Your task to perform on an android device: Open privacy settings Image 0: 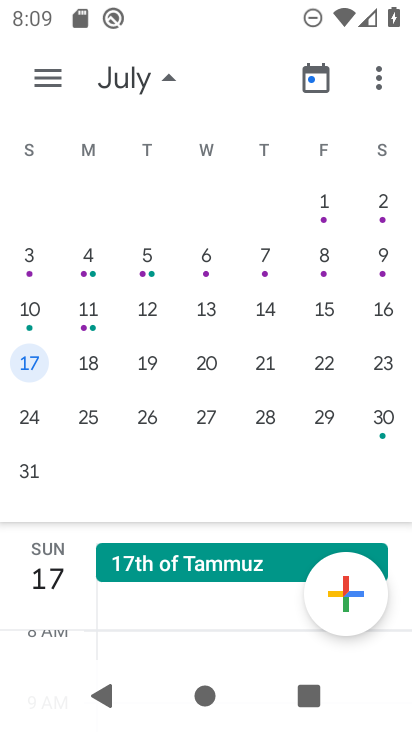
Step 0: press home button
Your task to perform on an android device: Open privacy settings Image 1: 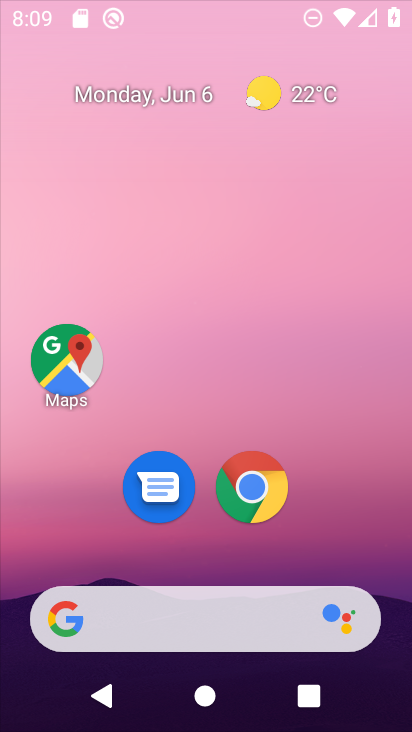
Step 1: drag from (393, 658) to (300, 106)
Your task to perform on an android device: Open privacy settings Image 2: 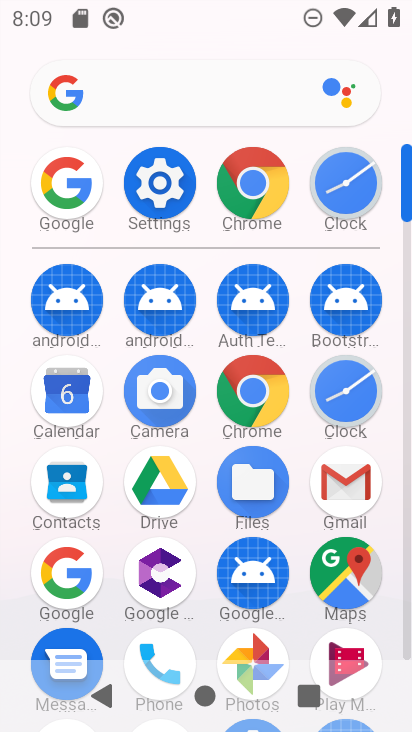
Step 2: click (271, 192)
Your task to perform on an android device: Open privacy settings Image 3: 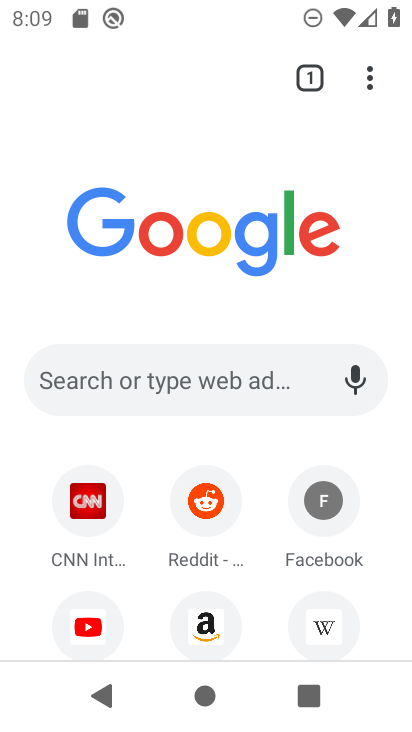
Step 3: click (383, 71)
Your task to perform on an android device: Open privacy settings Image 4: 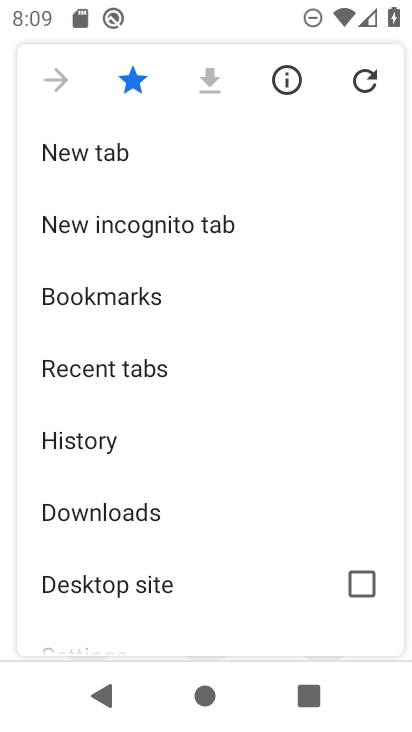
Step 4: drag from (144, 573) to (144, 154)
Your task to perform on an android device: Open privacy settings Image 5: 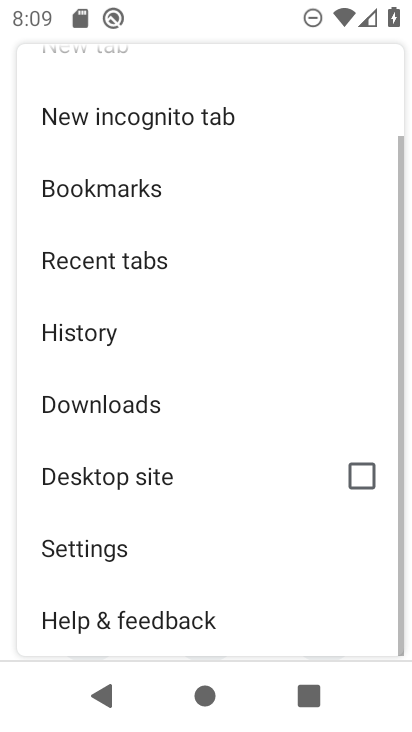
Step 5: click (68, 542)
Your task to perform on an android device: Open privacy settings Image 6: 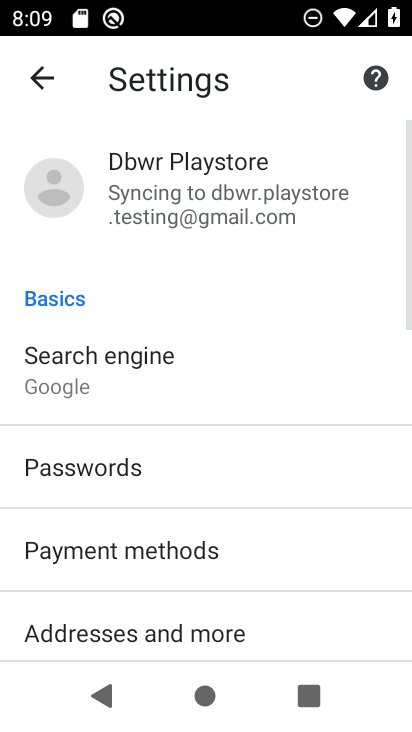
Step 6: drag from (99, 593) to (182, 236)
Your task to perform on an android device: Open privacy settings Image 7: 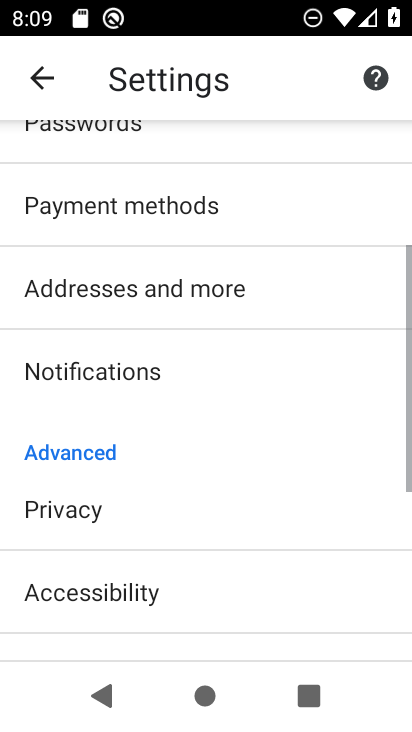
Step 7: click (174, 115)
Your task to perform on an android device: Open privacy settings Image 8: 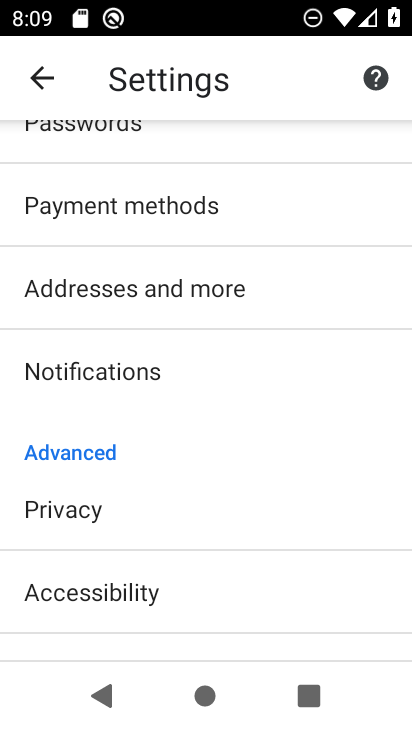
Step 8: click (100, 494)
Your task to perform on an android device: Open privacy settings Image 9: 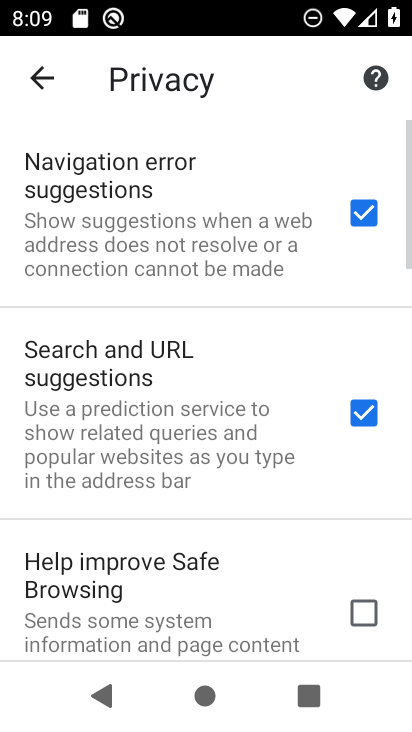
Step 9: task complete